Your task to perform on an android device: Open internet settings Image 0: 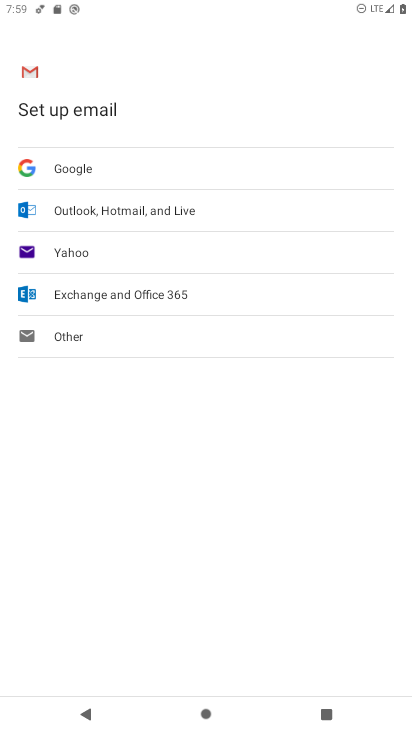
Step 0: press home button
Your task to perform on an android device: Open internet settings Image 1: 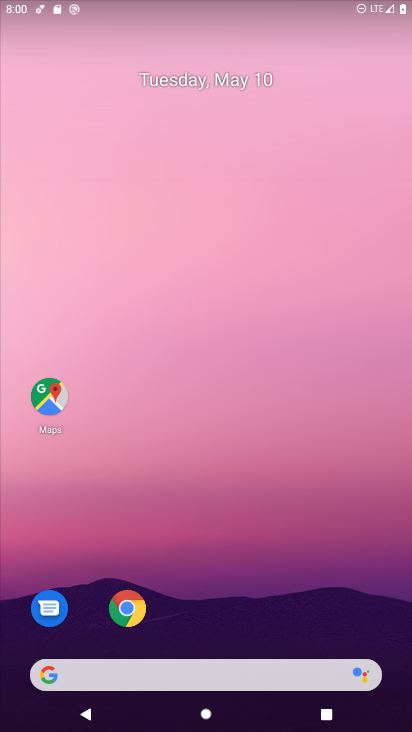
Step 1: drag from (278, 608) to (270, 195)
Your task to perform on an android device: Open internet settings Image 2: 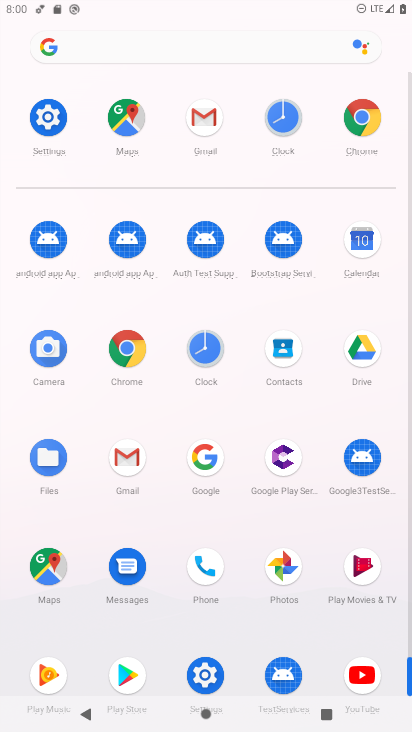
Step 2: click (48, 107)
Your task to perform on an android device: Open internet settings Image 3: 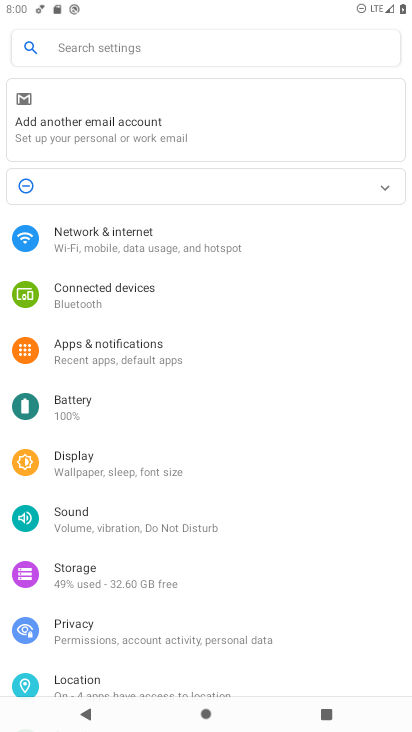
Step 3: click (163, 237)
Your task to perform on an android device: Open internet settings Image 4: 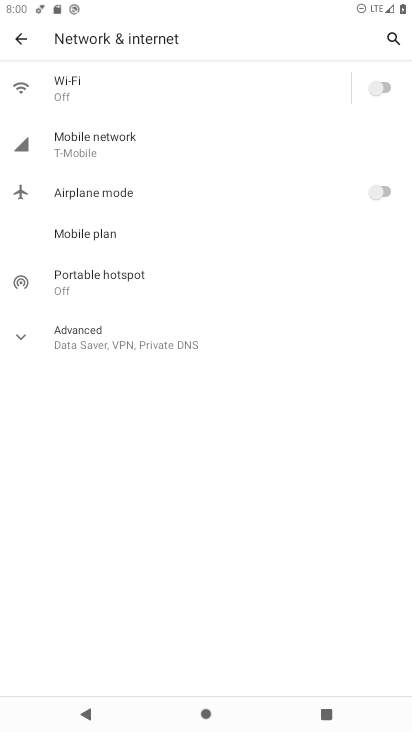
Step 4: task complete